Your task to perform on an android device: open a new tab in the chrome app Image 0: 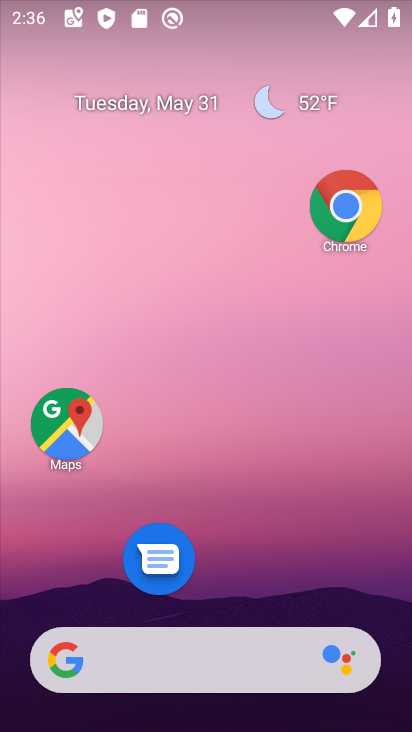
Step 0: drag from (293, 578) to (236, 131)
Your task to perform on an android device: open a new tab in the chrome app Image 1: 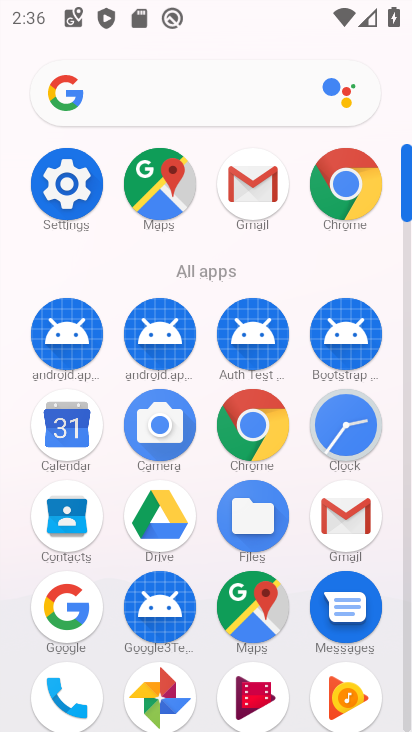
Step 1: click (263, 444)
Your task to perform on an android device: open a new tab in the chrome app Image 2: 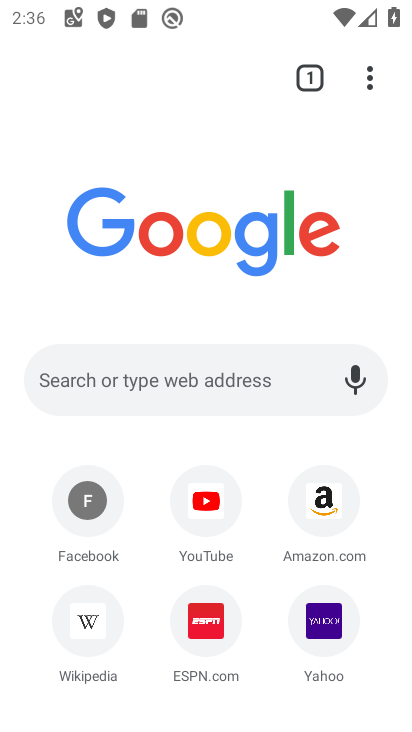
Step 2: click (322, 87)
Your task to perform on an android device: open a new tab in the chrome app Image 3: 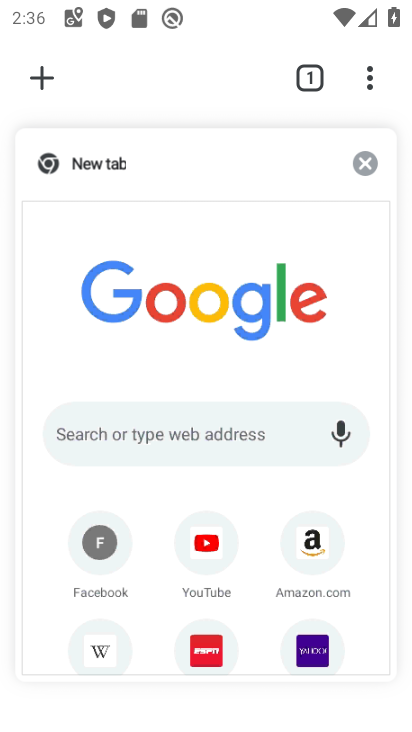
Step 3: click (52, 84)
Your task to perform on an android device: open a new tab in the chrome app Image 4: 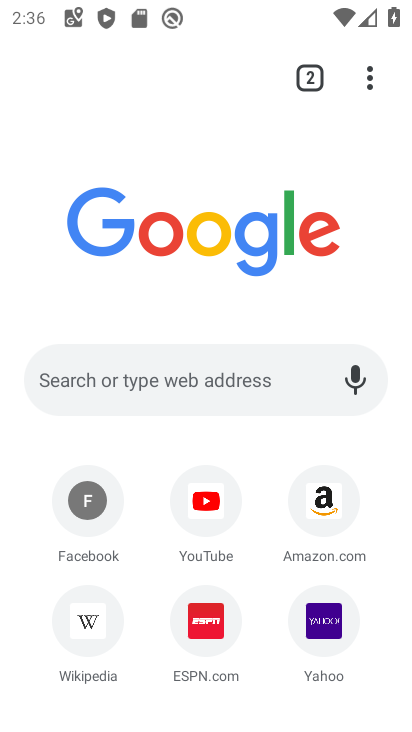
Step 4: task complete